Your task to perform on an android device: Add "alienware aurora" to the cart on target.com Image 0: 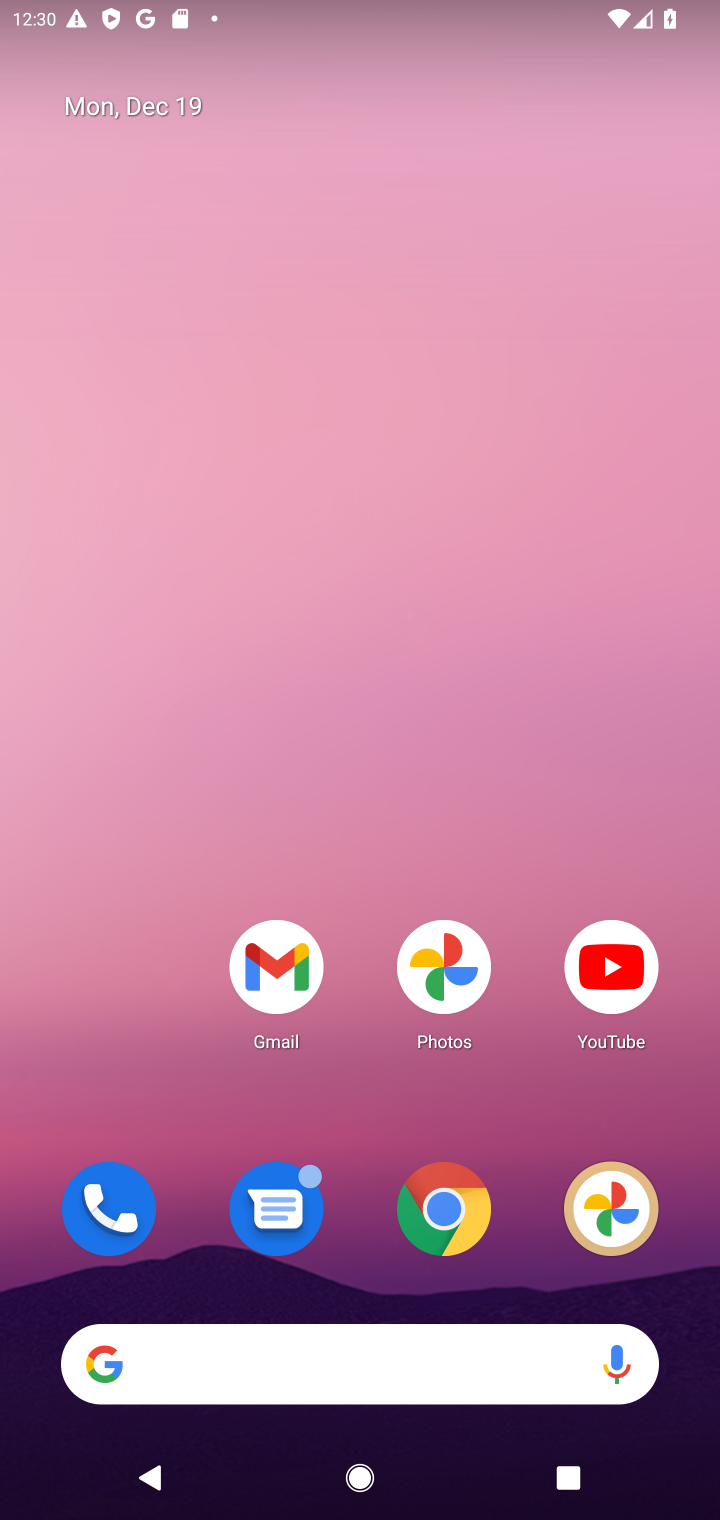
Step 0: task complete